Your task to perform on an android device: toggle notifications settings in the gmail app Image 0: 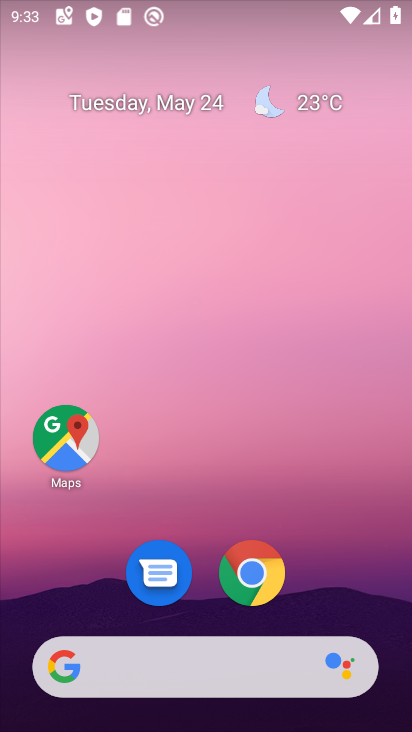
Step 0: drag from (385, 625) to (338, 114)
Your task to perform on an android device: toggle notifications settings in the gmail app Image 1: 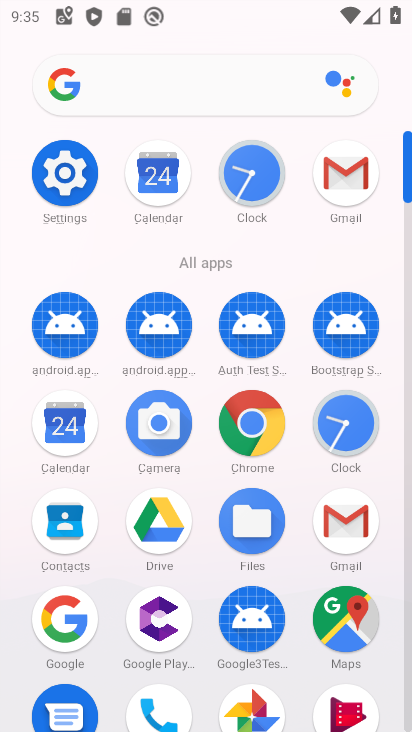
Step 1: click (352, 520)
Your task to perform on an android device: toggle notifications settings in the gmail app Image 2: 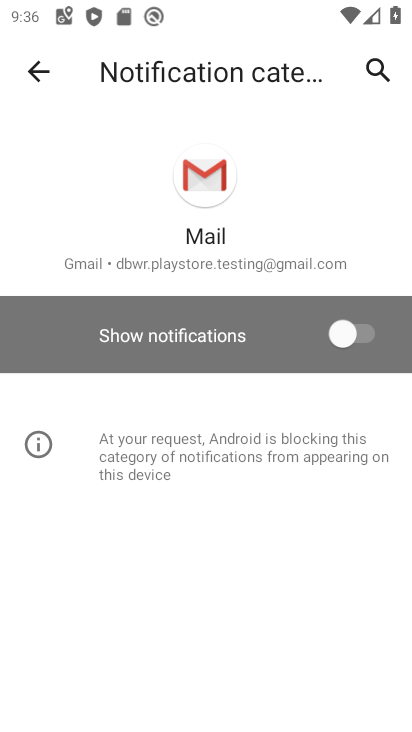
Step 2: click (352, 334)
Your task to perform on an android device: toggle notifications settings in the gmail app Image 3: 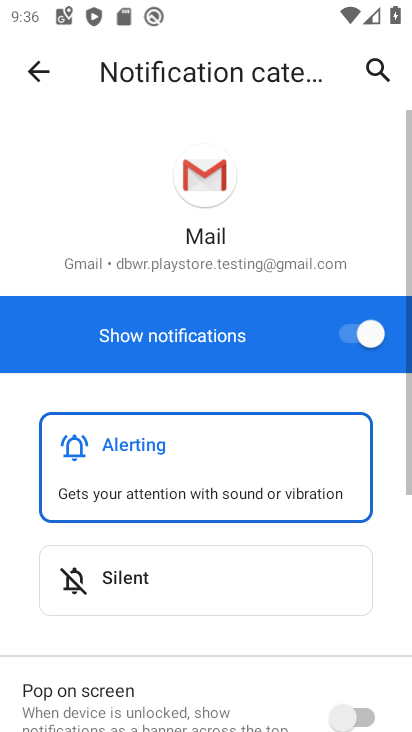
Step 3: task complete